Your task to perform on an android device: install app "Roku - Official Remote Control" Image 0: 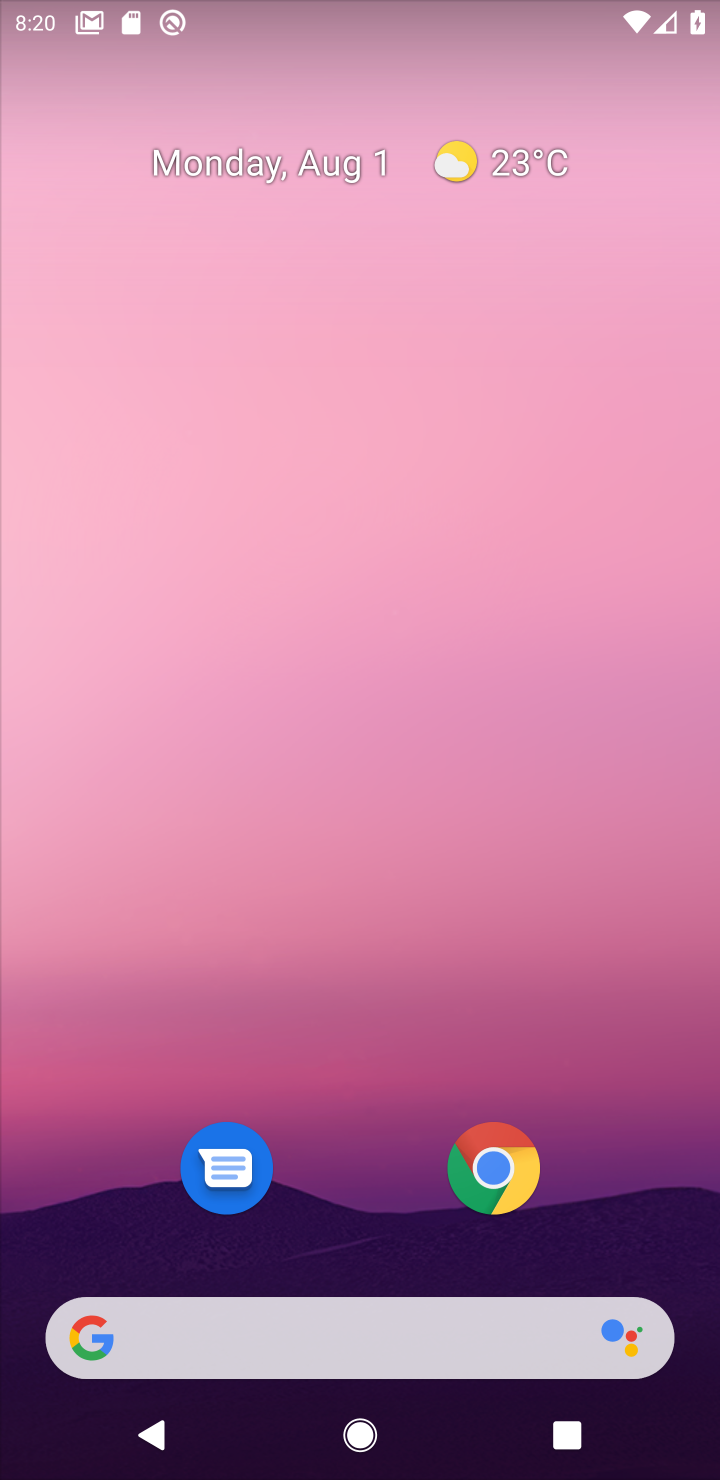
Step 0: drag from (367, 123) to (597, 35)
Your task to perform on an android device: install app "Roku - Official Remote Control" Image 1: 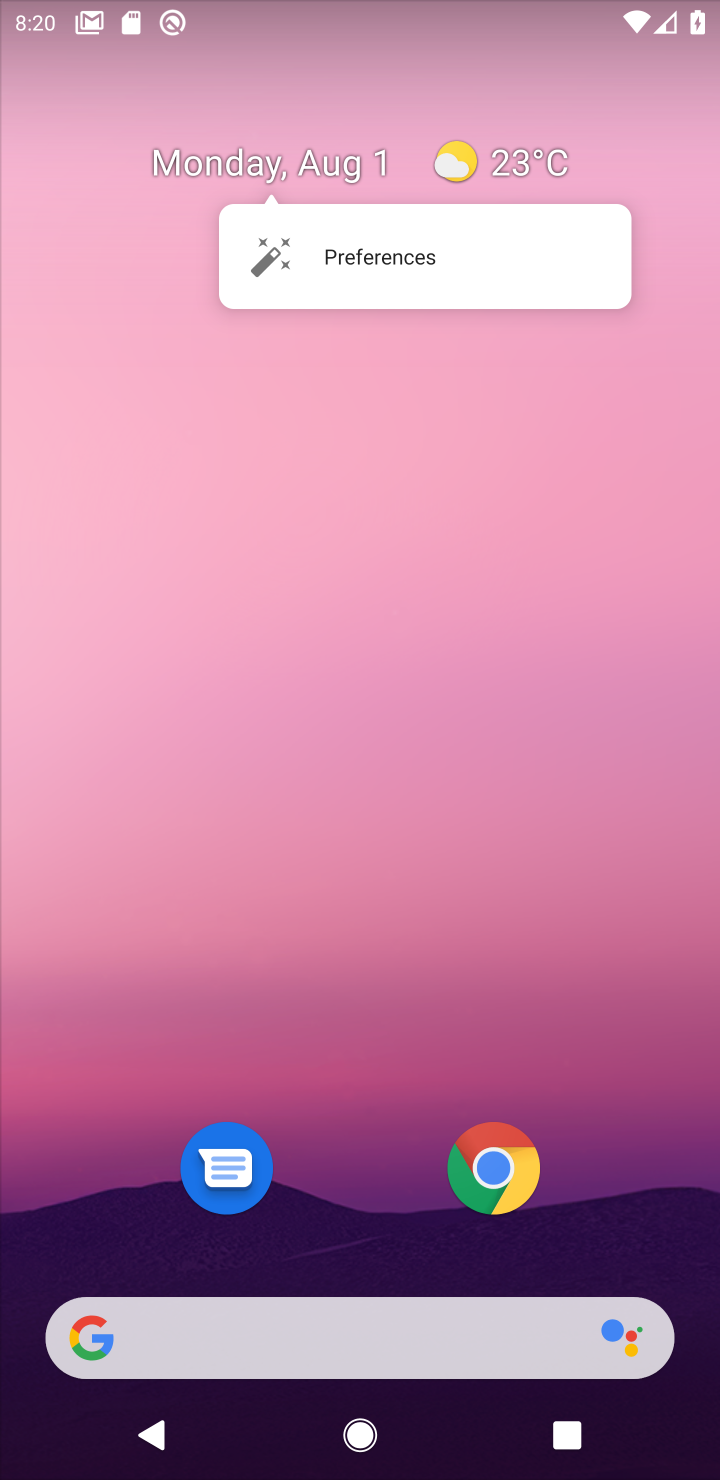
Step 1: drag from (405, 1188) to (383, 13)
Your task to perform on an android device: install app "Roku - Official Remote Control" Image 2: 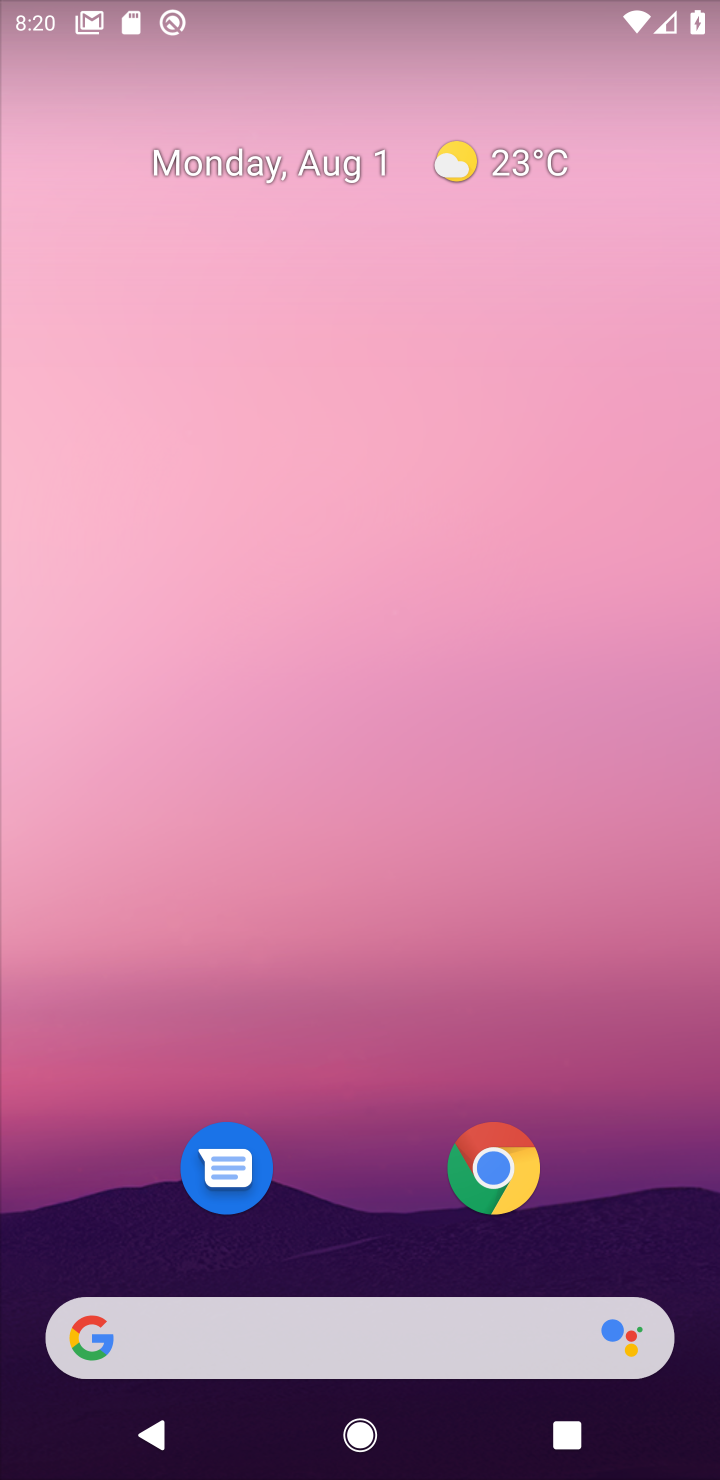
Step 2: drag from (358, 1183) to (679, 32)
Your task to perform on an android device: install app "Roku - Official Remote Control" Image 3: 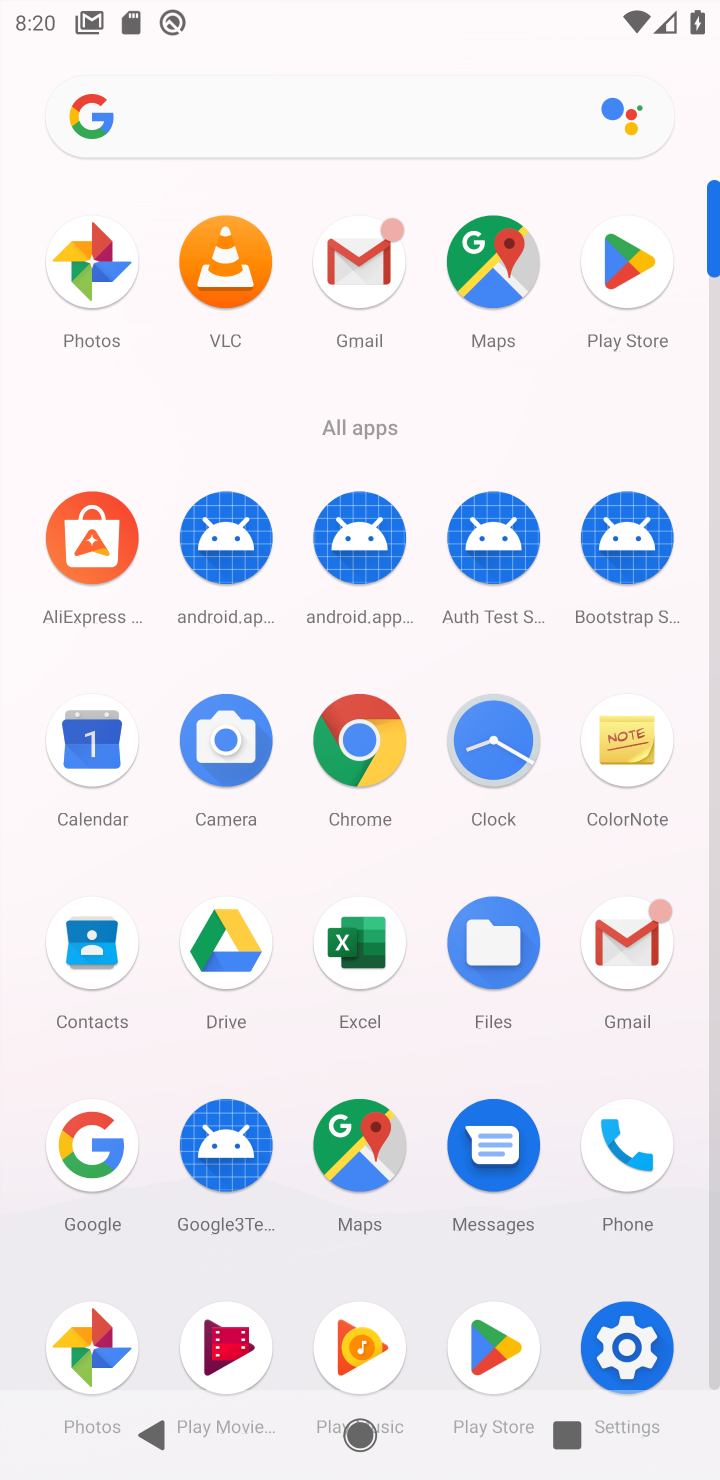
Step 3: click (637, 258)
Your task to perform on an android device: install app "Roku - Official Remote Control" Image 4: 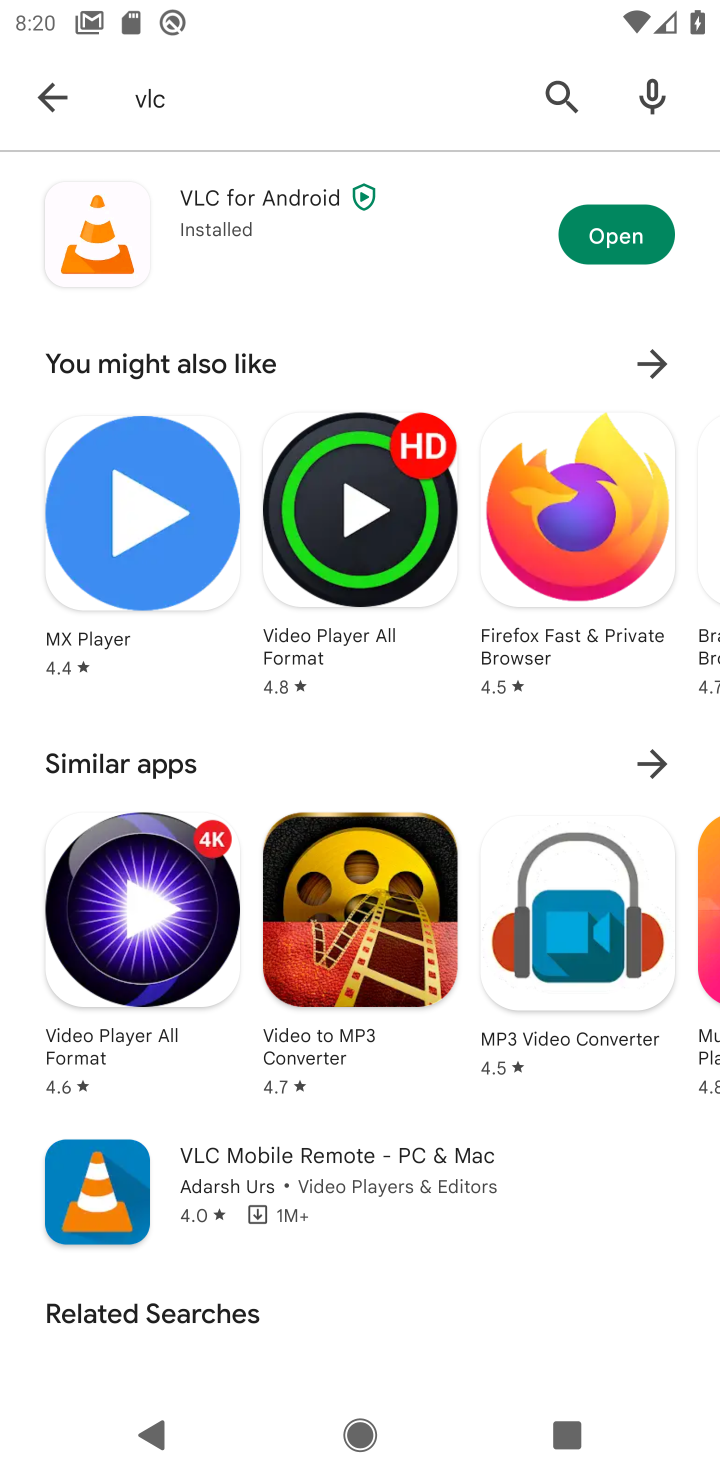
Step 4: click (274, 97)
Your task to perform on an android device: install app "Roku - Official Remote Control" Image 5: 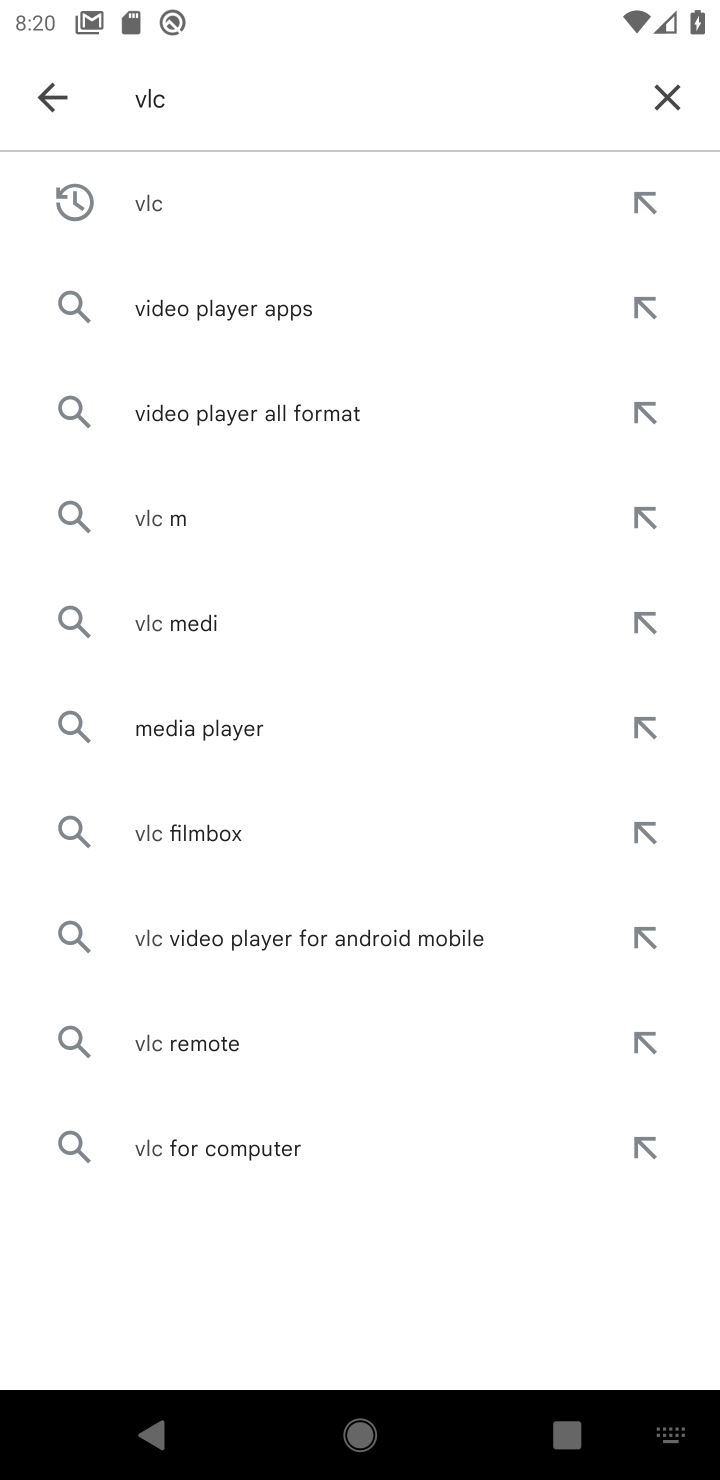
Step 5: click (683, 100)
Your task to perform on an android device: install app "Roku - Official Remote Control" Image 6: 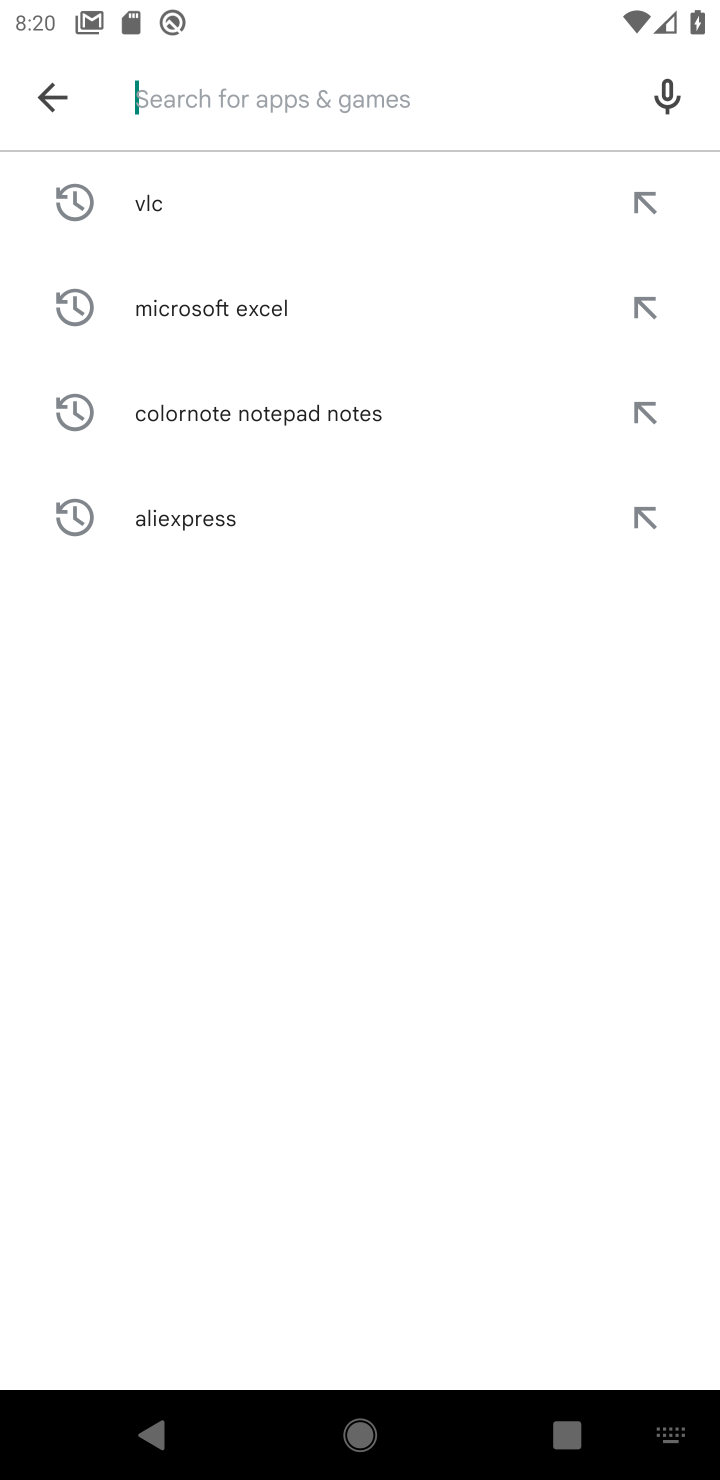
Step 6: type "Roku"
Your task to perform on an android device: install app "Roku - Official Remote Control" Image 7: 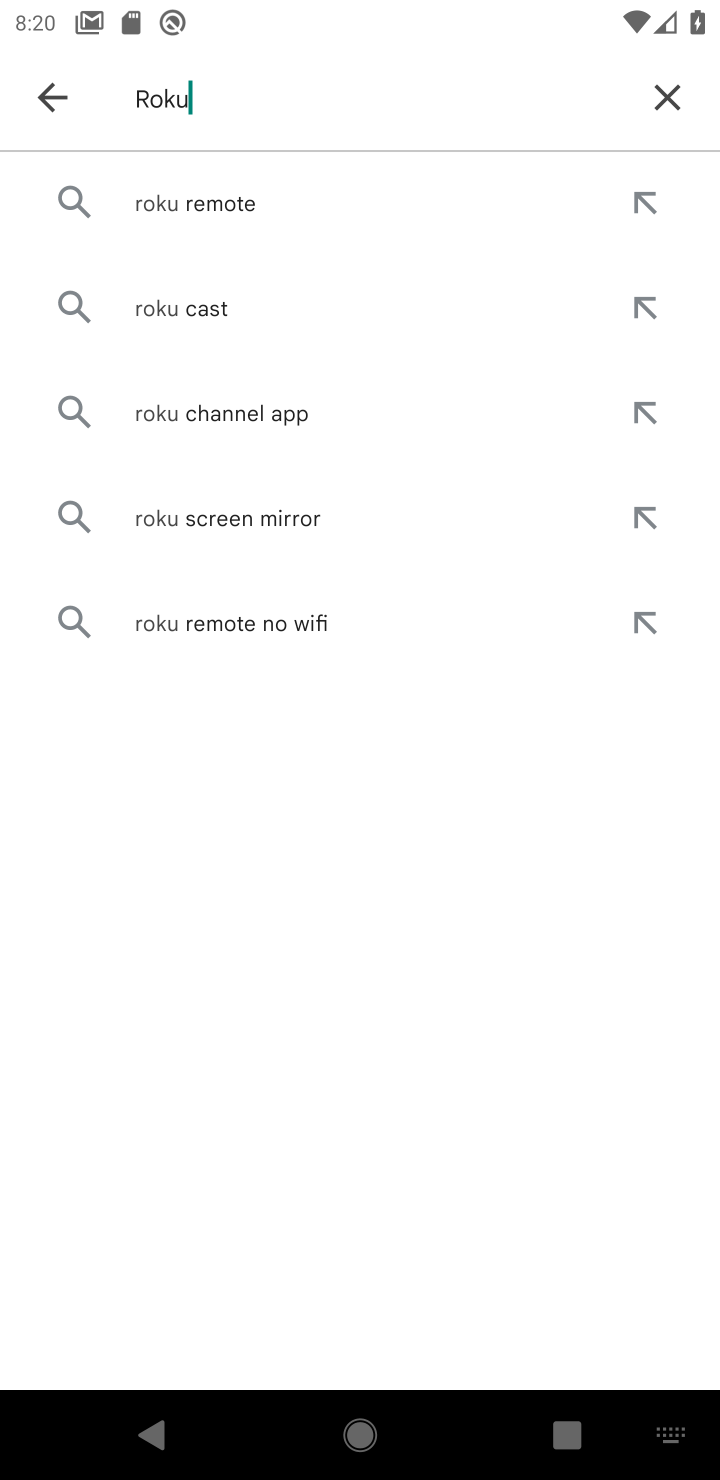
Step 7: click (217, 211)
Your task to perform on an android device: install app "Roku - Official Remote Control" Image 8: 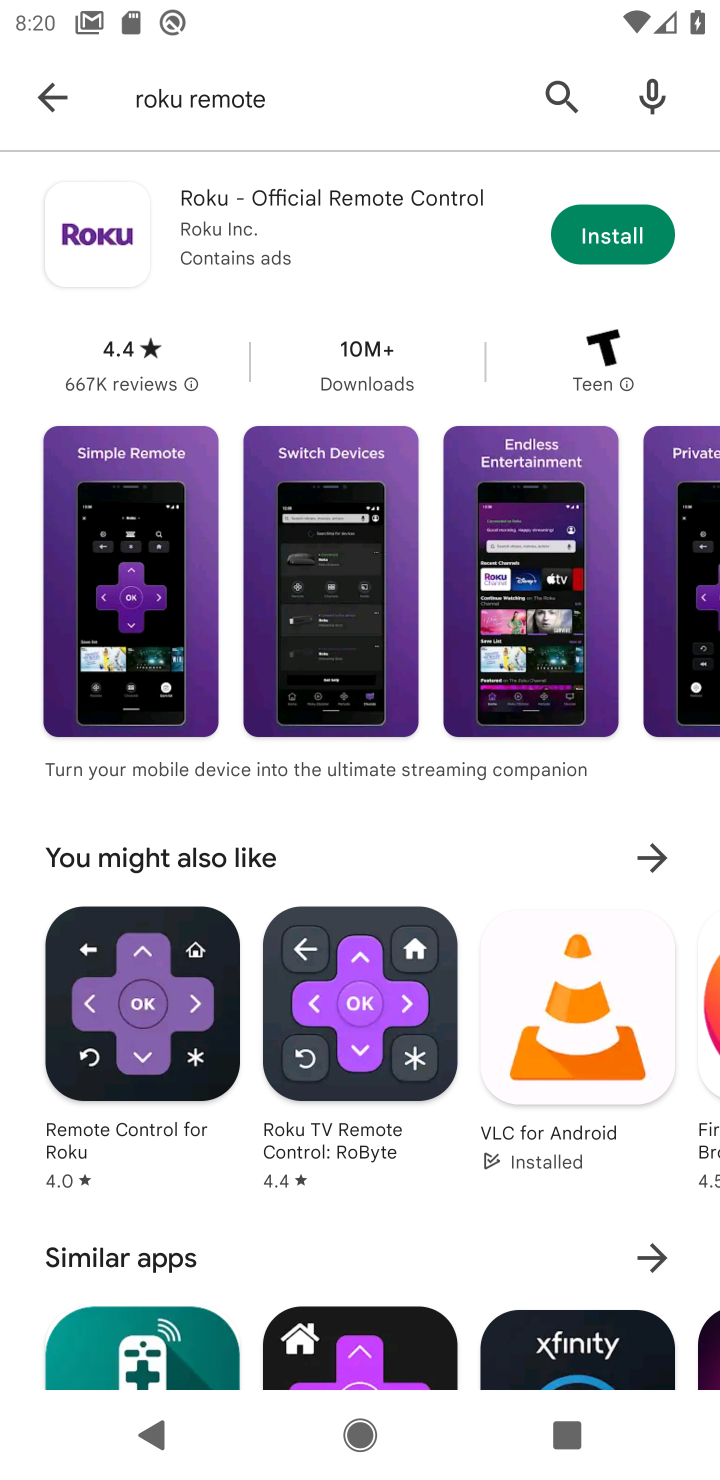
Step 8: click (624, 251)
Your task to perform on an android device: install app "Roku - Official Remote Control" Image 9: 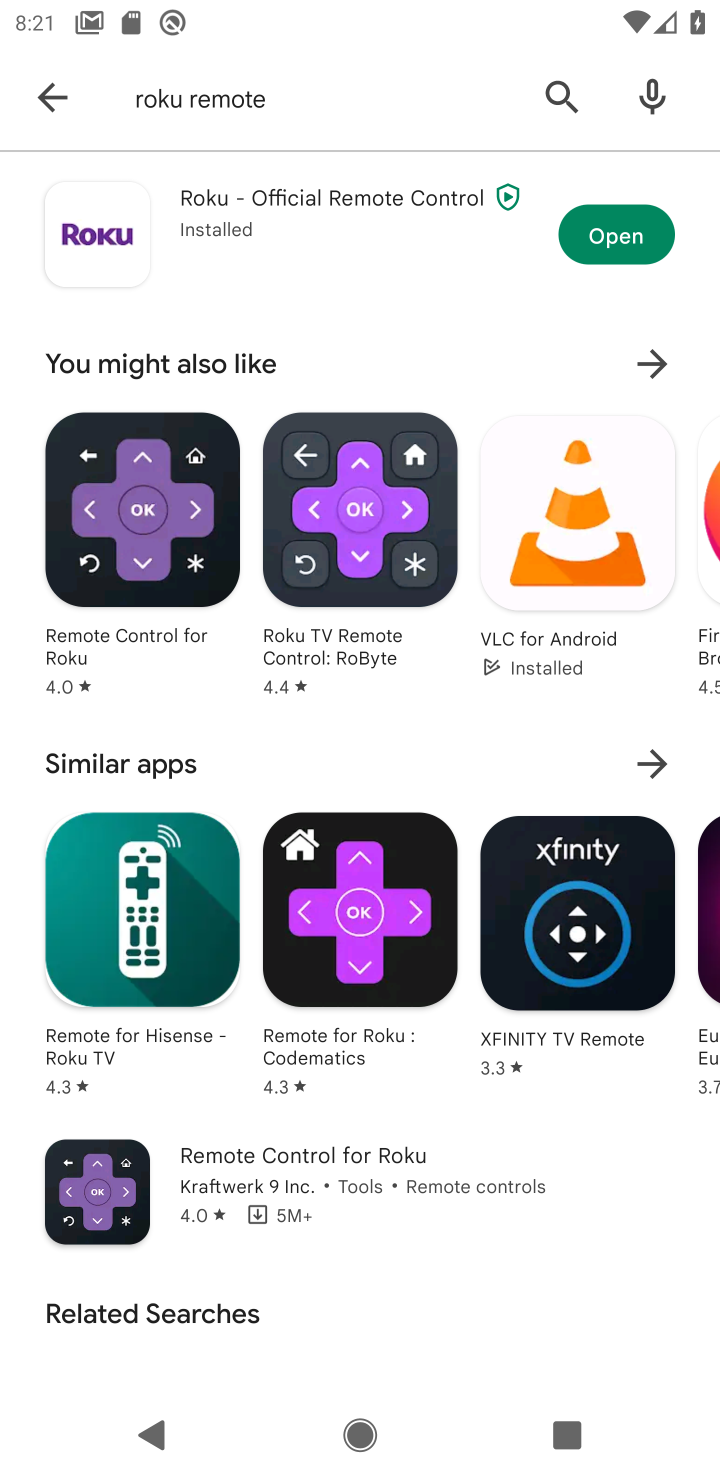
Step 9: task complete